Your task to perform on an android device: Show me popular videos on Youtube Image 0: 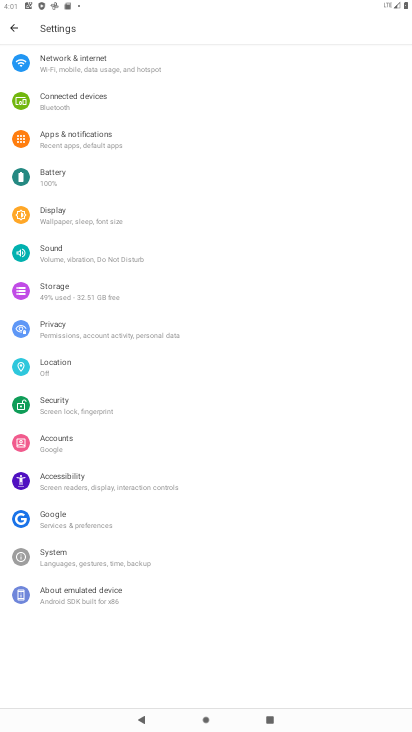
Step 0: press home button
Your task to perform on an android device: Show me popular videos on Youtube Image 1: 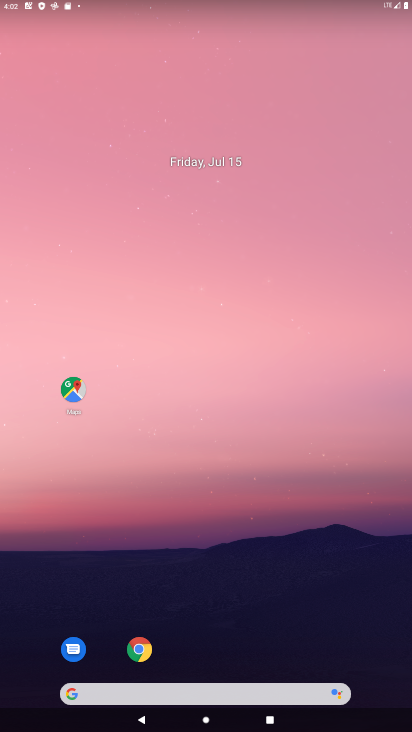
Step 1: drag from (275, 574) to (247, 62)
Your task to perform on an android device: Show me popular videos on Youtube Image 2: 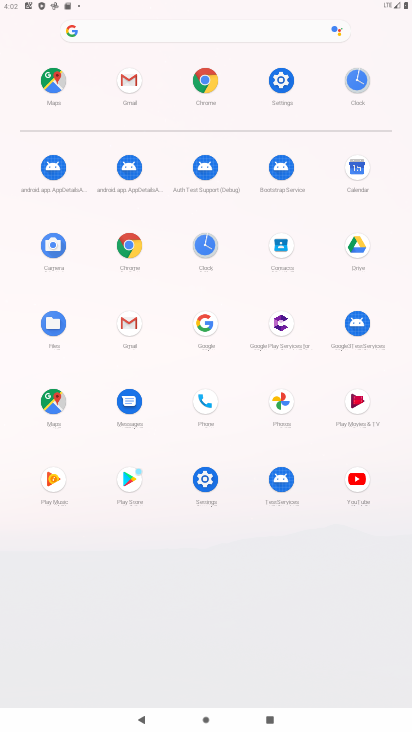
Step 2: click (365, 477)
Your task to perform on an android device: Show me popular videos on Youtube Image 3: 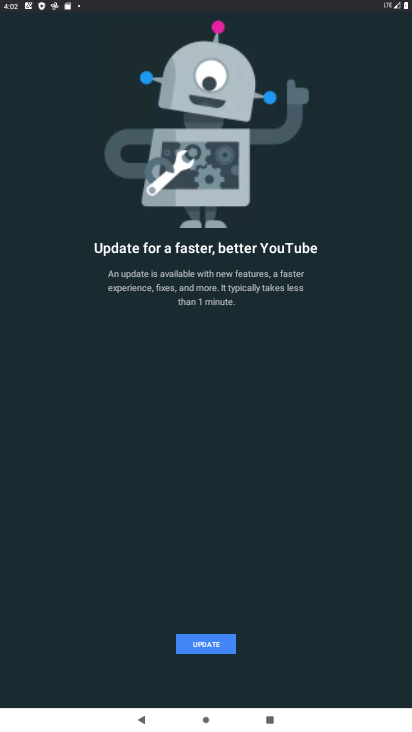
Step 3: task complete